Your task to perform on an android device: What's on my calendar today? Image 0: 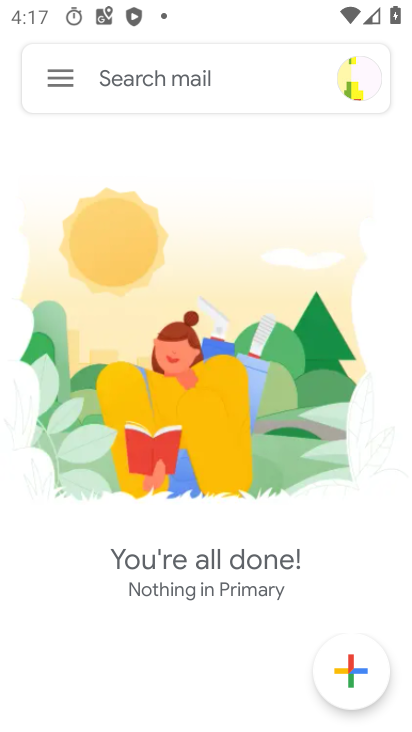
Step 0: press home button
Your task to perform on an android device: What's on my calendar today? Image 1: 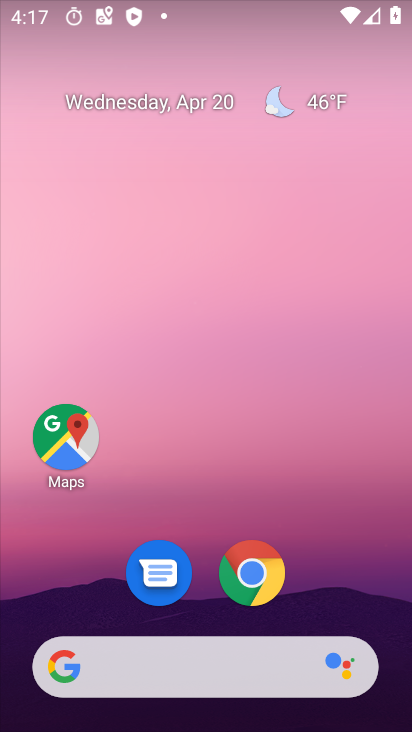
Step 1: drag from (345, 577) to (315, 74)
Your task to perform on an android device: What's on my calendar today? Image 2: 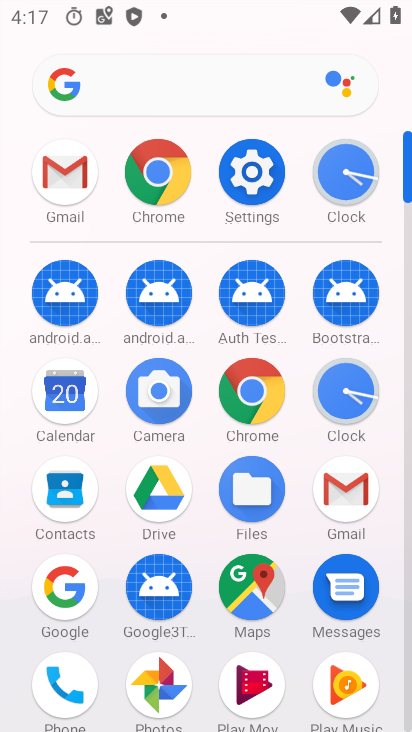
Step 2: click (62, 409)
Your task to perform on an android device: What's on my calendar today? Image 3: 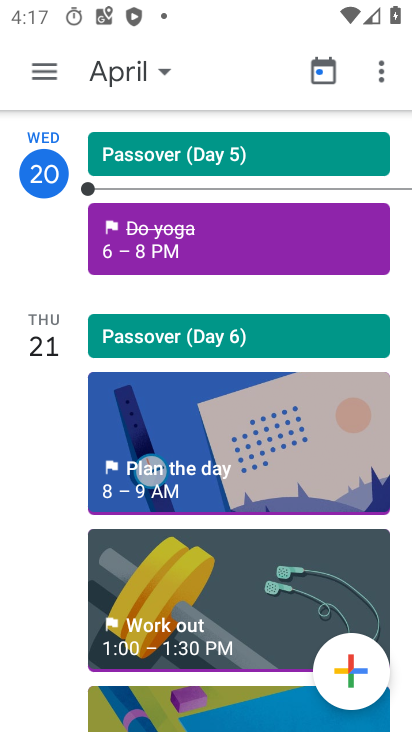
Step 3: click (165, 71)
Your task to perform on an android device: What's on my calendar today? Image 4: 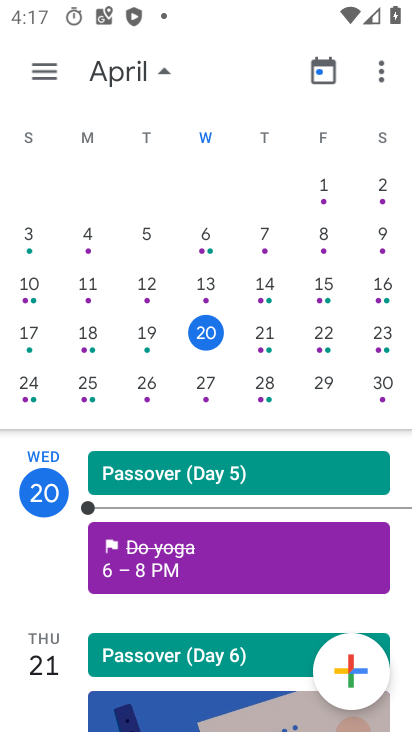
Step 4: click (197, 330)
Your task to perform on an android device: What's on my calendar today? Image 5: 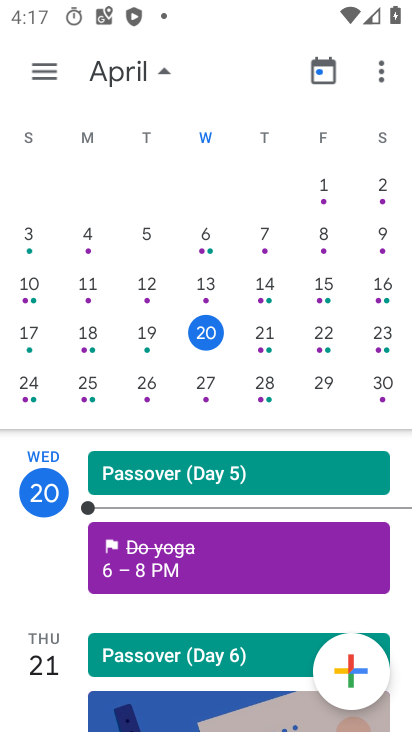
Step 5: task complete